Your task to perform on an android device: Open accessibility settings Image 0: 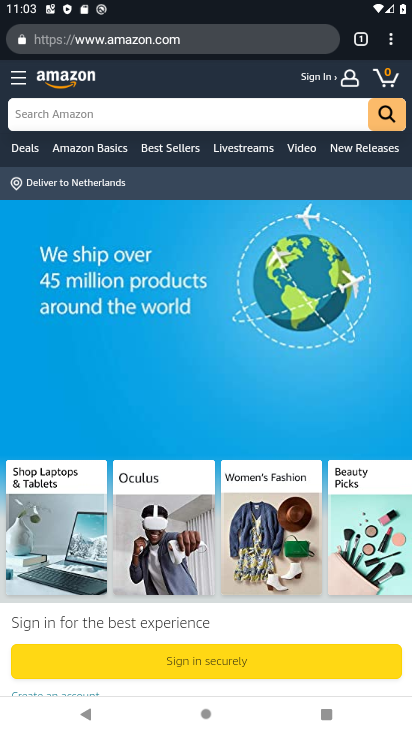
Step 0: press home button
Your task to perform on an android device: Open accessibility settings Image 1: 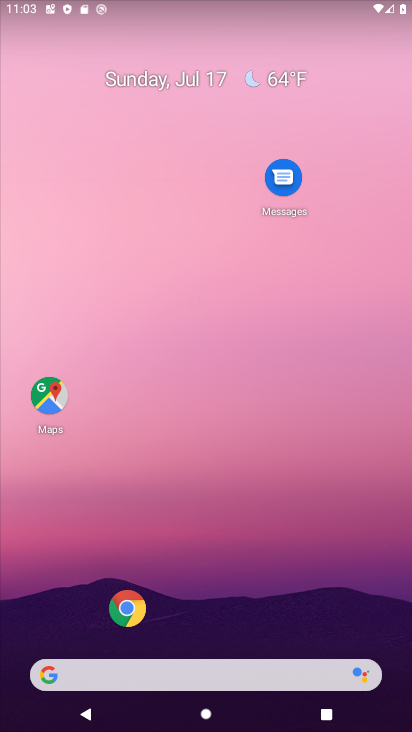
Step 1: drag from (184, 315) to (246, 90)
Your task to perform on an android device: Open accessibility settings Image 2: 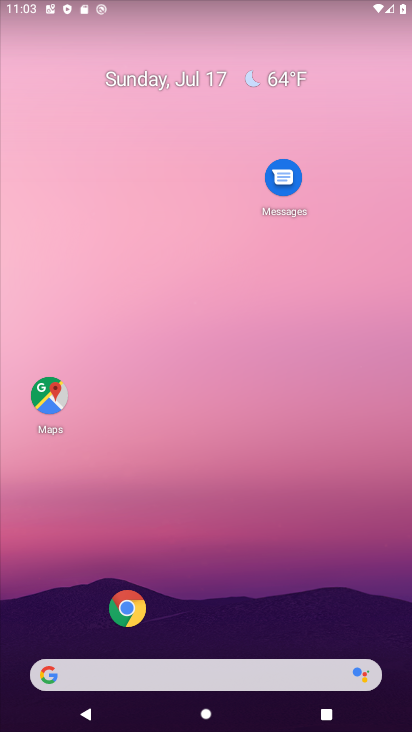
Step 2: drag from (25, 686) to (167, 171)
Your task to perform on an android device: Open accessibility settings Image 3: 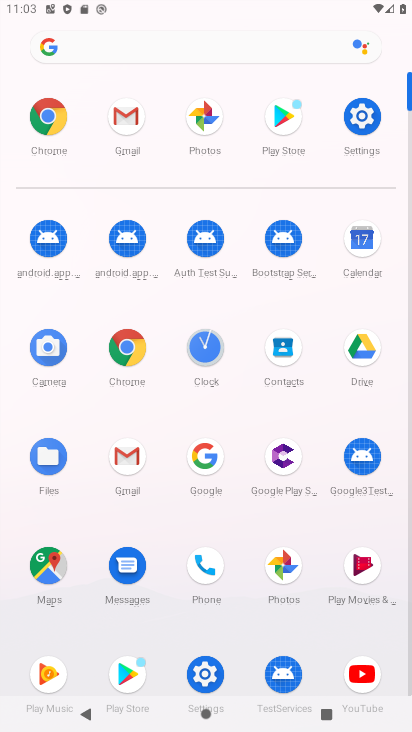
Step 3: click (206, 666)
Your task to perform on an android device: Open accessibility settings Image 4: 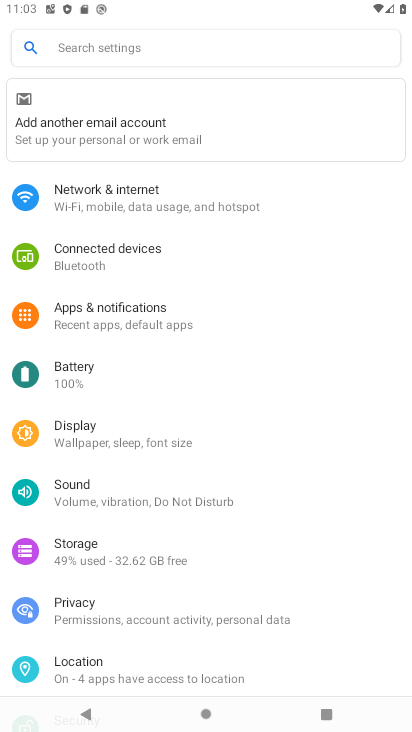
Step 4: drag from (305, 594) to (332, 186)
Your task to perform on an android device: Open accessibility settings Image 5: 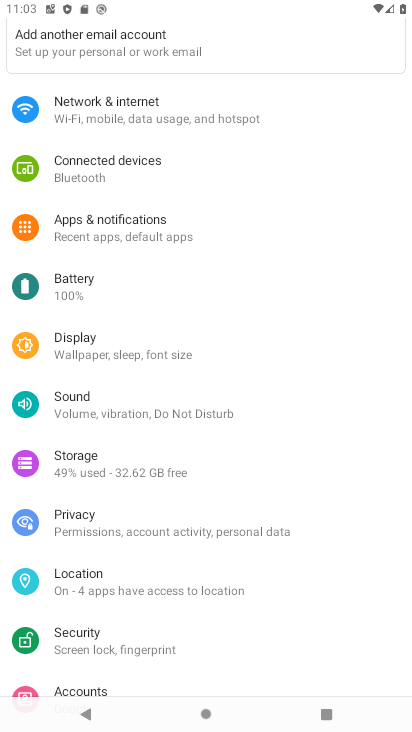
Step 5: drag from (219, 618) to (304, 117)
Your task to perform on an android device: Open accessibility settings Image 6: 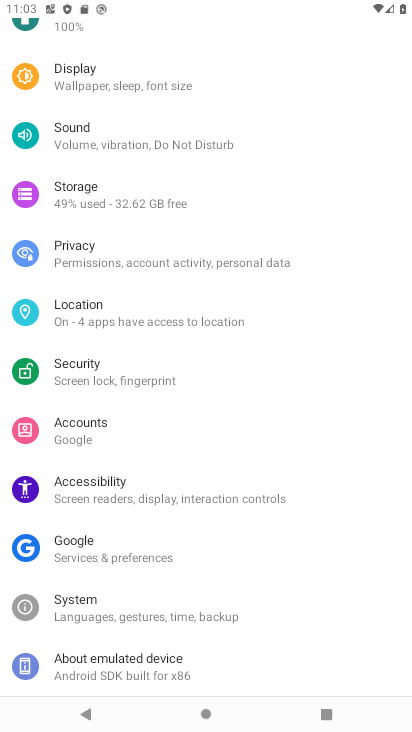
Step 6: click (127, 481)
Your task to perform on an android device: Open accessibility settings Image 7: 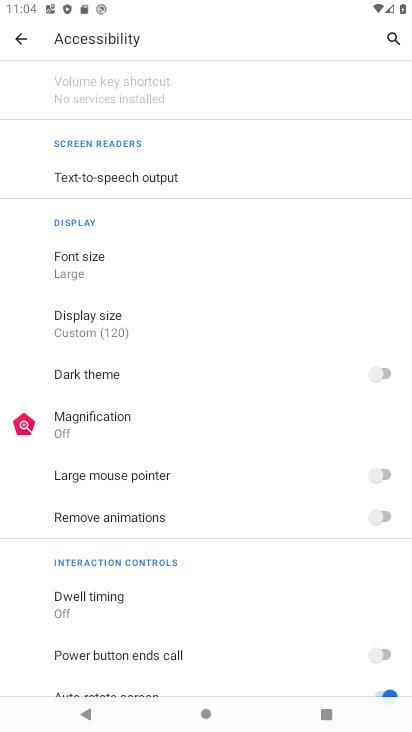
Step 7: task complete